Your task to perform on an android device: Go to Maps Image 0: 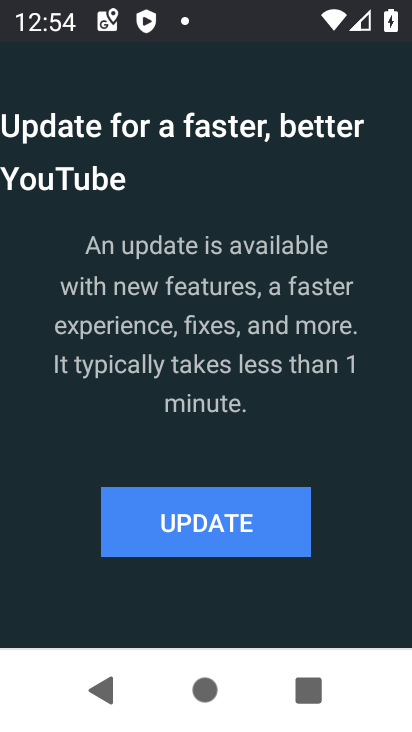
Step 0: press home button
Your task to perform on an android device: Go to Maps Image 1: 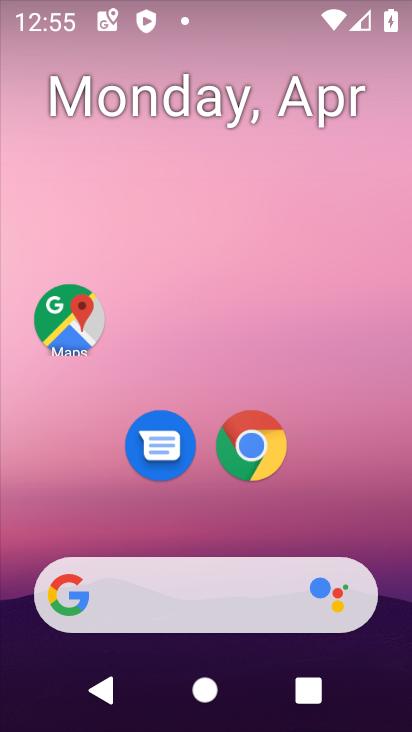
Step 1: drag from (368, 495) to (387, 80)
Your task to perform on an android device: Go to Maps Image 2: 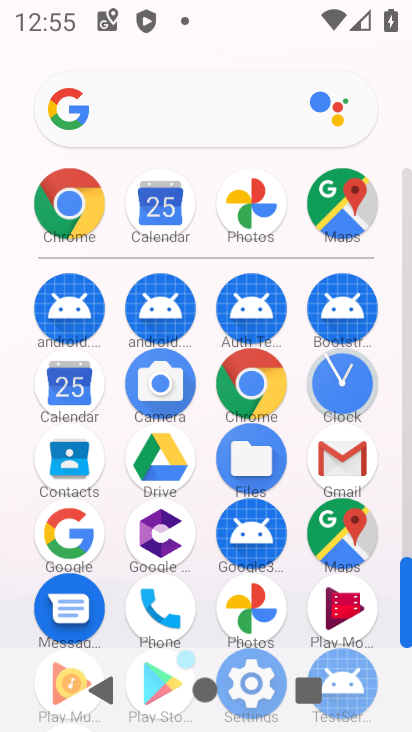
Step 2: click (351, 210)
Your task to perform on an android device: Go to Maps Image 3: 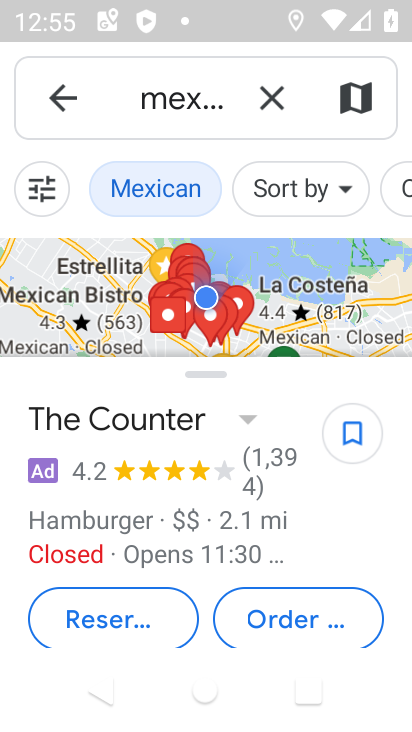
Step 3: task complete